Your task to perform on an android device: check google app version Image 0: 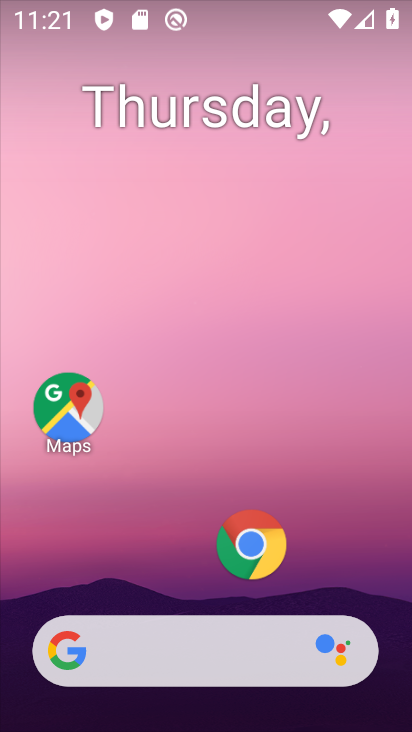
Step 0: drag from (220, 616) to (196, 24)
Your task to perform on an android device: check google app version Image 1: 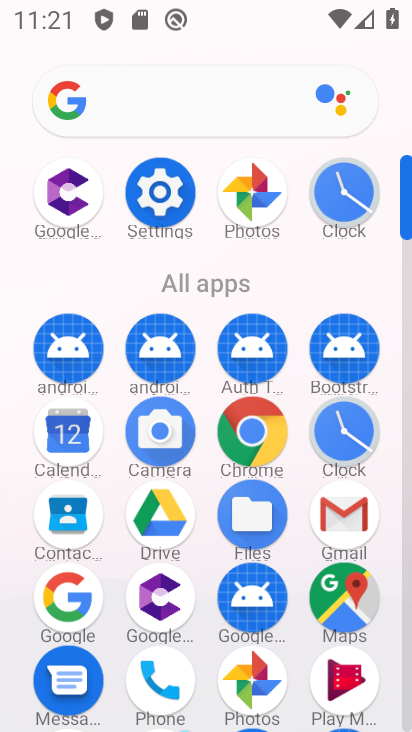
Step 1: click (82, 602)
Your task to perform on an android device: check google app version Image 2: 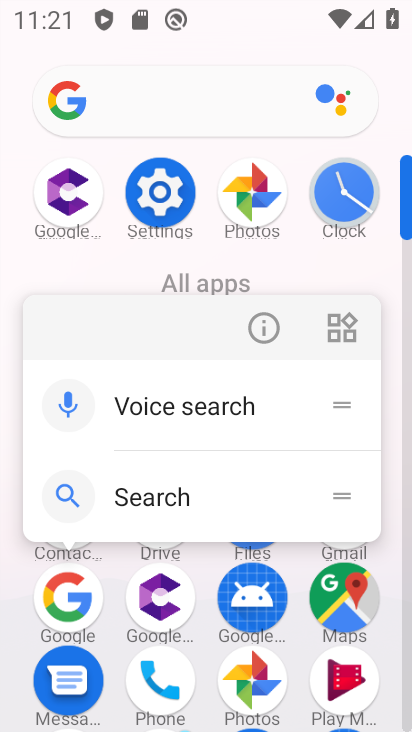
Step 2: click (257, 330)
Your task to perform on an android device: check google app version Image 3: 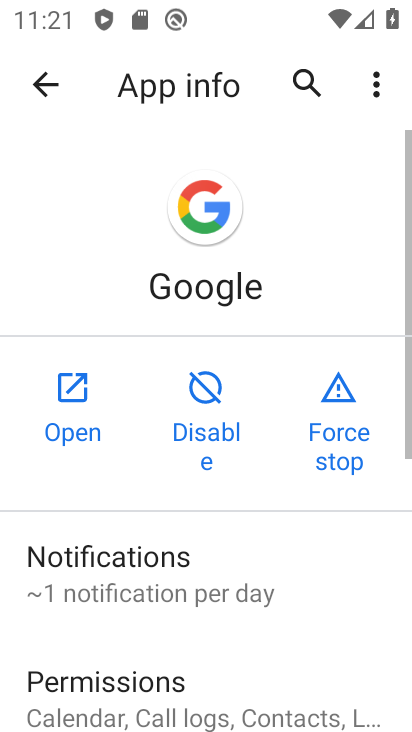
Step 3: drag from (288, 632) to (395, 18)
Your task to perform on an android device: check google app version Image 4: 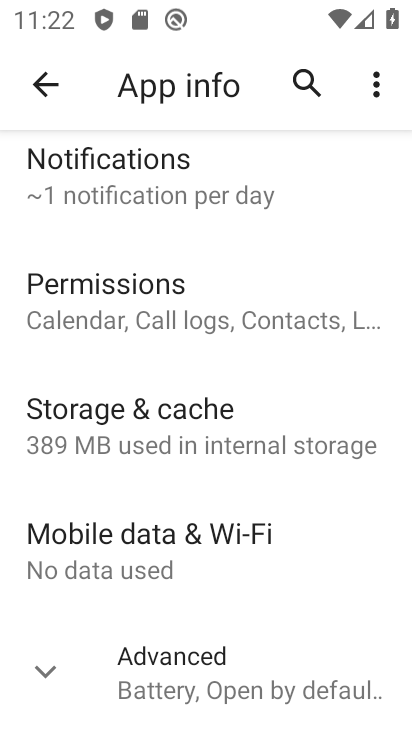
Step 4: click (156, 687)
Your task to perform on an android device: check google app version Image 5: 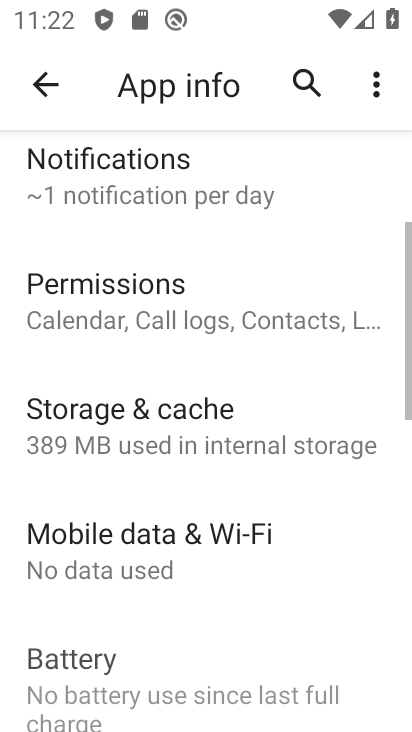
Step 5: task complete